Your task to perform on an android device: Do I have any events this weekend? Image 0: 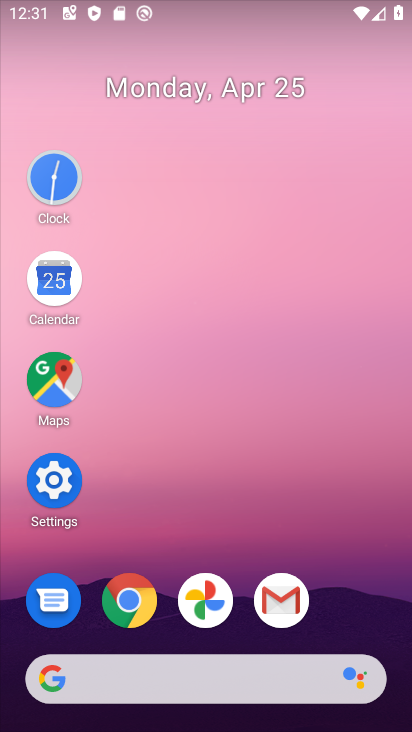
Step 0: click (58, 272)
Your task to perform on an android device: Do I have any events this weekend? Image 1: 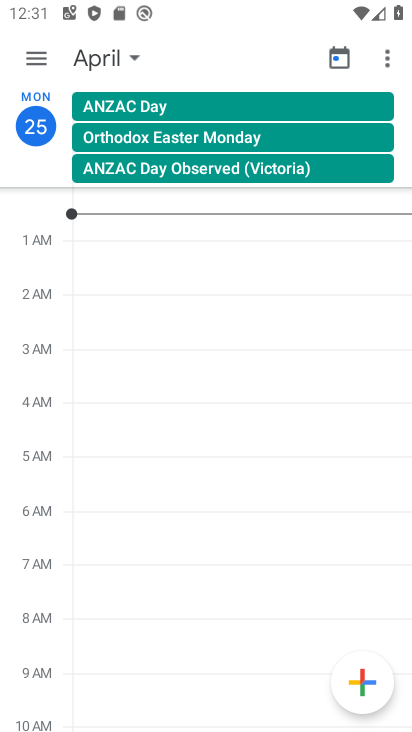
Step 1: click (37, 58)
Your task to perform on an android device: Do I have any events this weekend? Image 2: 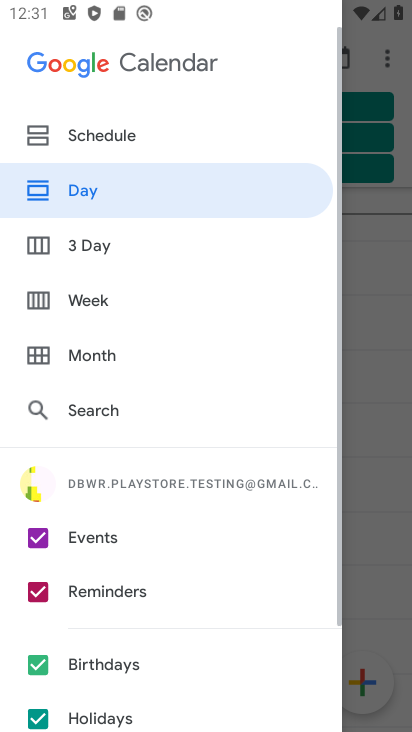
Step 2: click (88, 302)
Your task to perform on an android device: Do I have any events this weekend? Image 3: 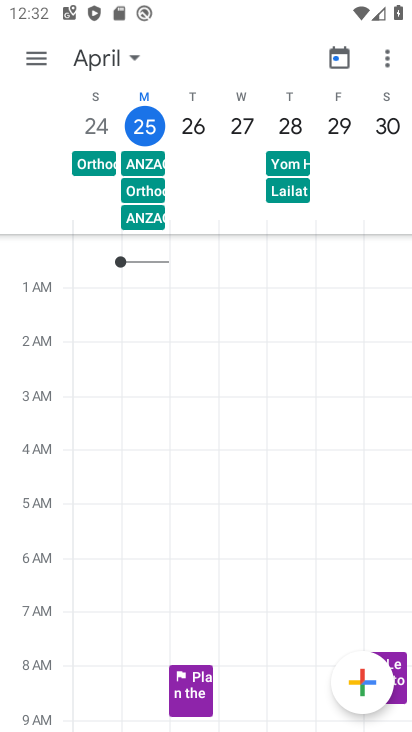
Step 3: click (384, 128)
Your task to perform on an android device: Do I have any events this weekend? Image 4: 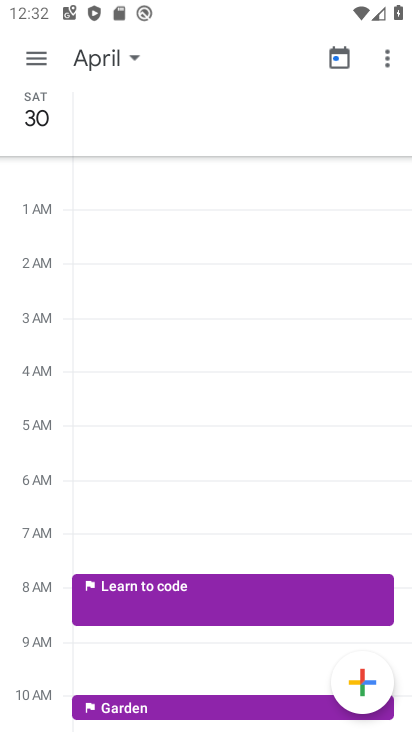
Step 4: task complete